Your task to perform on an android device: turn pop-ups on in chrome Image 0: 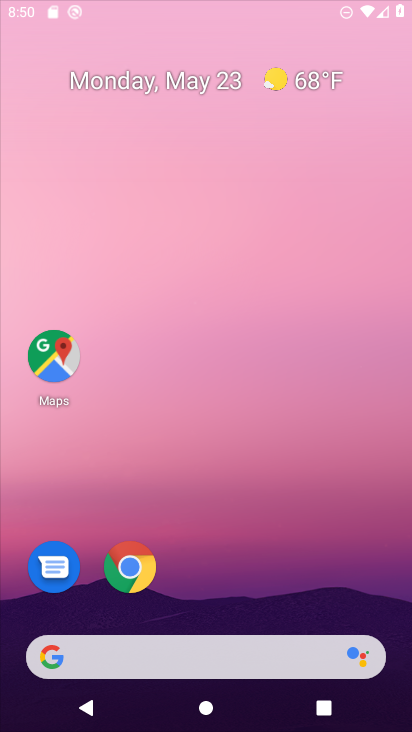
Step 0: click (200, 109)
Your task to perform on an android device: turn pop-ups on in chrome Image 1: 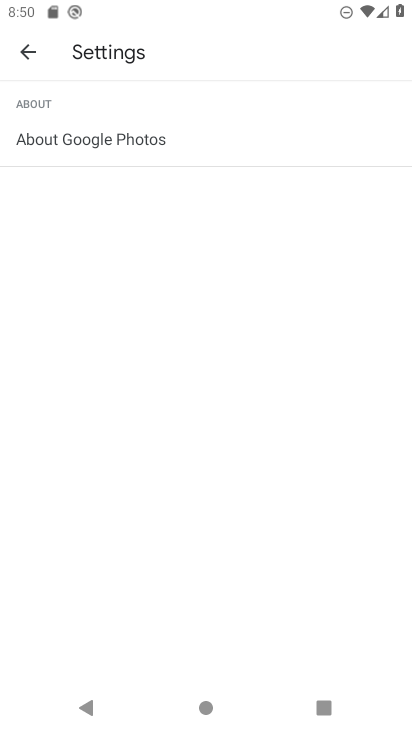
Step 1: press home button
Your task to perform on an android device: turn pop-ups on in chrome Image 2: 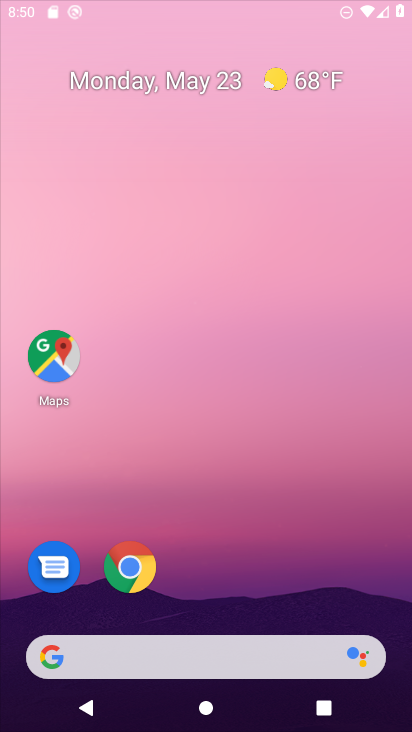
Step 2: drag from (176, 631) to (270, 43)
Your task to perform on an android device: turn pop-ups on in chrome Image 3: 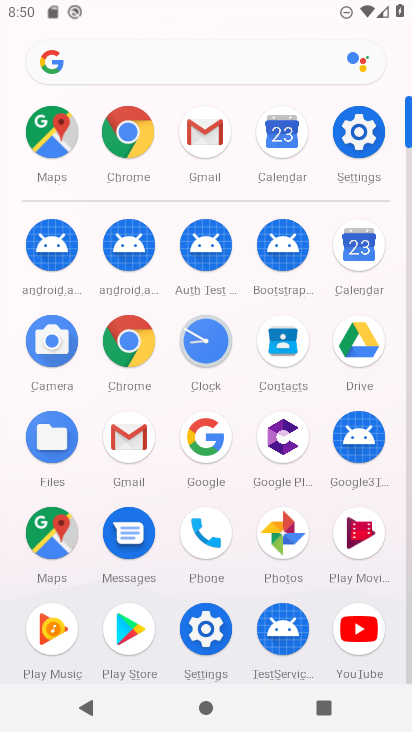
Step 3: click (127, 331)
Your task to perform on an android device: turn pop-ups on in chrome Image 4: 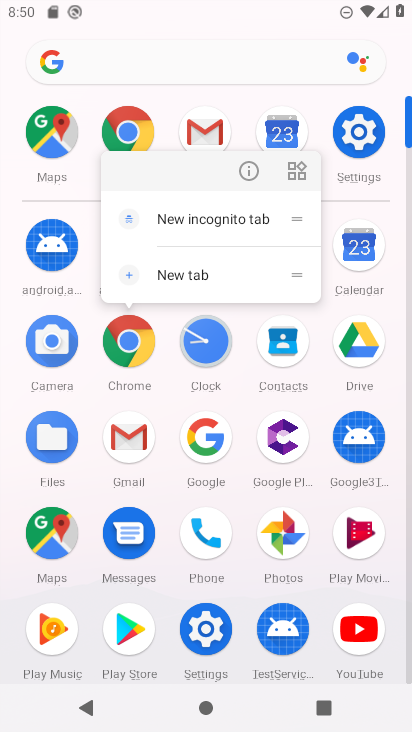
Step 4: click (256, 182)
Your task to perform on an android device: turn pop-ups on in chrome Image 5: 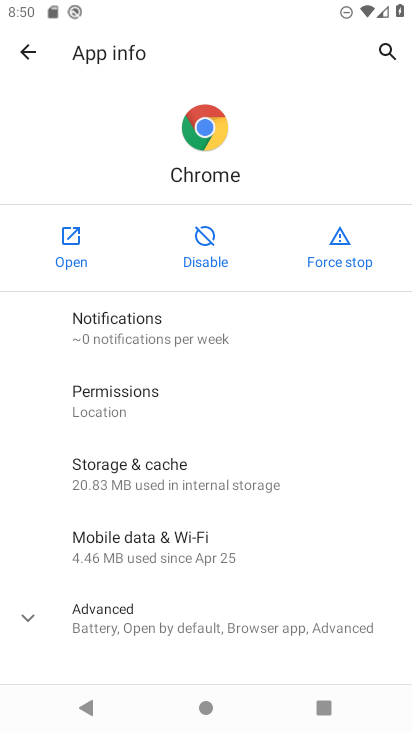
Step 5: click (63, 236)
Your task to perform on an android device: turn pop-ups on in chrome Image 6: 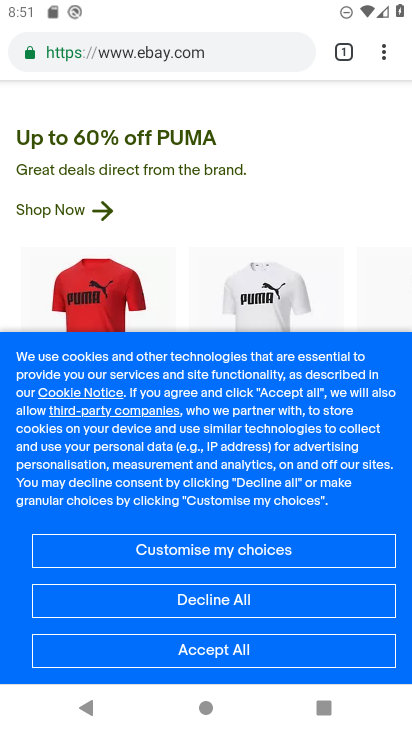
Step 6: drag from (252, 562) to (320, 180)
Your task to perform on an android device: turn pop-ups on in chrome Image 7: 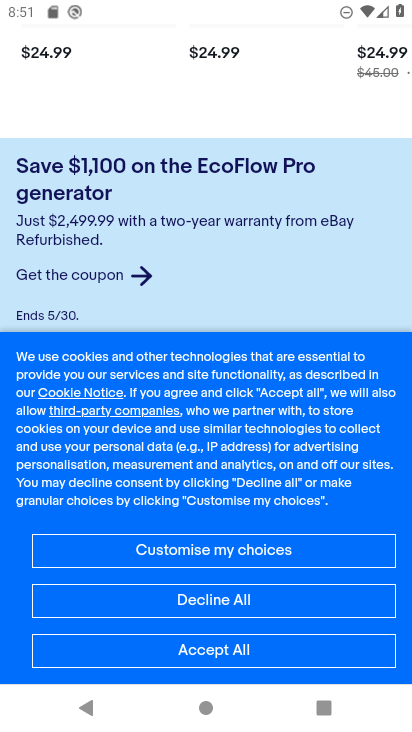
Step 7: drag from (381, 51) to (374, 468)
Your task to perform on an android device: turn pop-ups on in chrome Image 8: 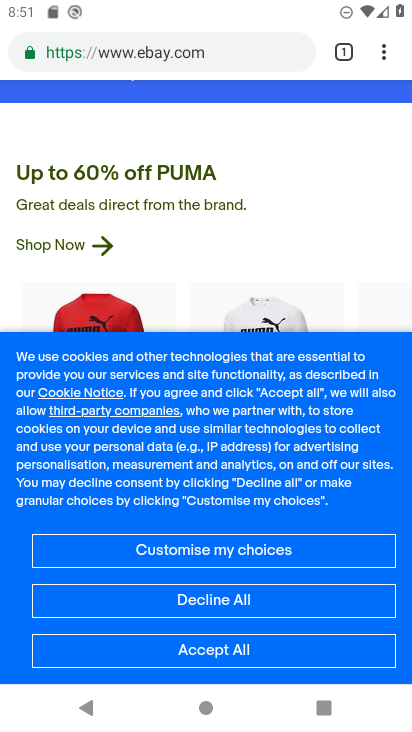
Step 8: click (378, 56)
Your task to perform on an android device: turn pop-ups on in chrome Image 9: 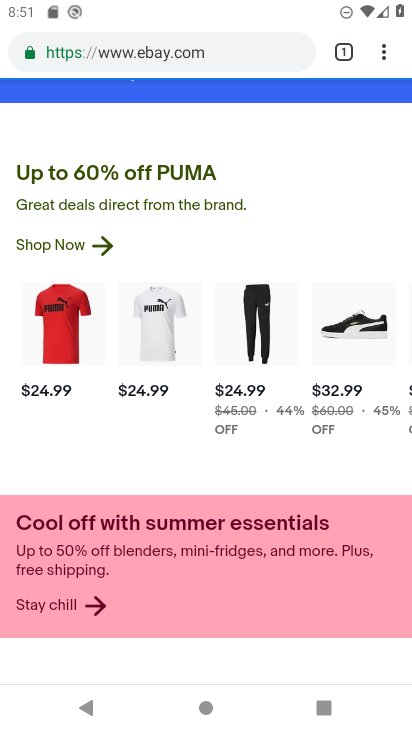
Step 9: click (380, 49)
Your task to perform on an android device: turn pop-ups on in chrome Image 10: 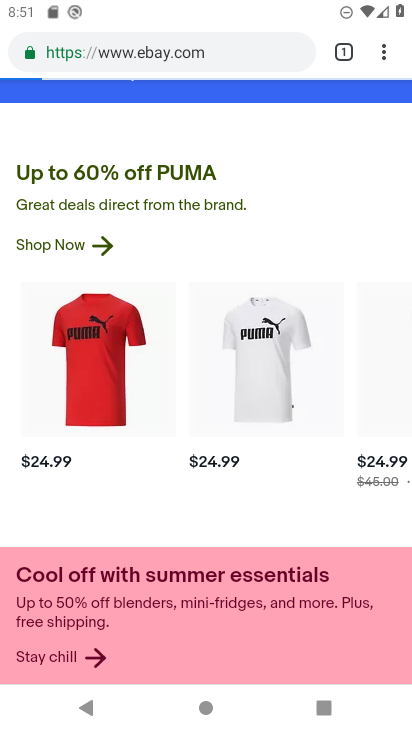
Step 10: click (380, 49)
Your task to perform on an android device: turn pop-ups on in chrome Image 11: 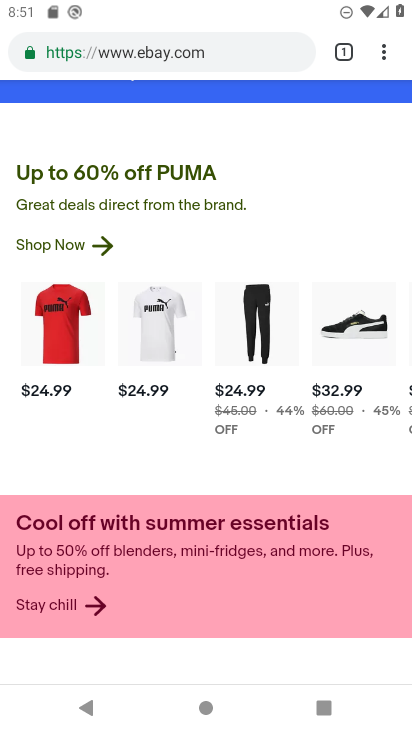
Step 11: click (381, 46)
Your task to perform on an android device: turn pop-ups on in chrome Image 12: 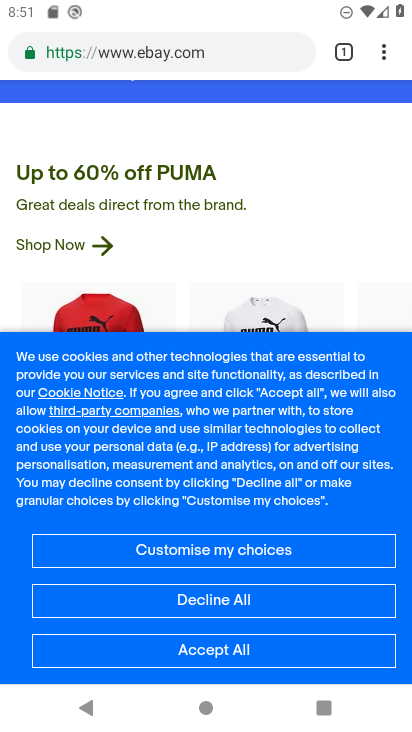
Step 12: click (387, 57)
Your task to perform on an android device: turn pop-ups on in chrome Image 13: 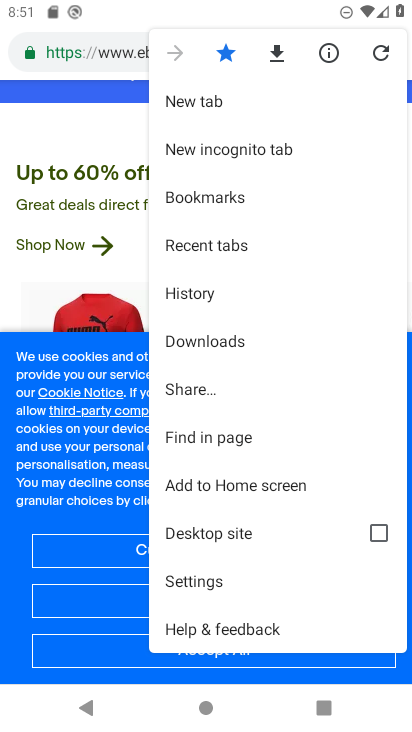
Step 13: click (242, 587)
Your task to perform on an android device: turn pop-ups on in chrome Image 14: 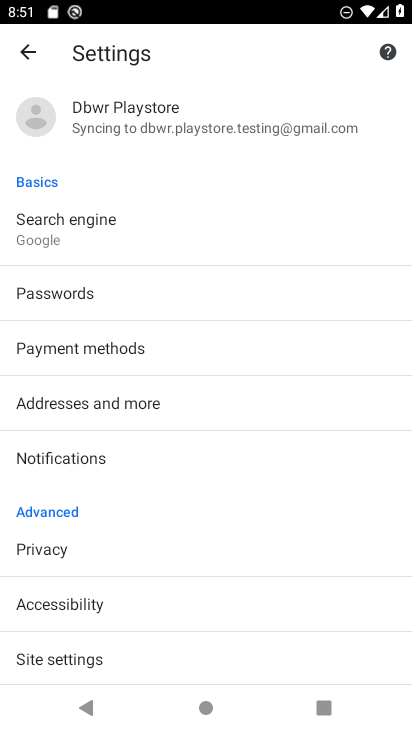
Step 14: drag from (193, 610) to (295, 136)
Your task to perform on an android device: turn pop-ups on in chrome Image 15: 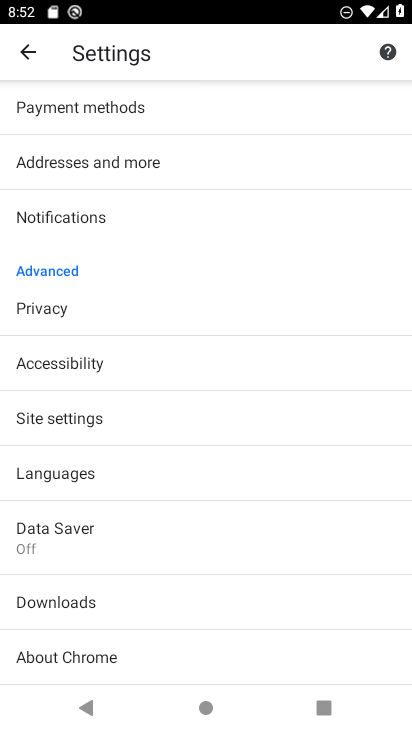
Step 15: click (115, 413)
Your task to perform on an android device: turn pop-ups on in chrome Image 16: 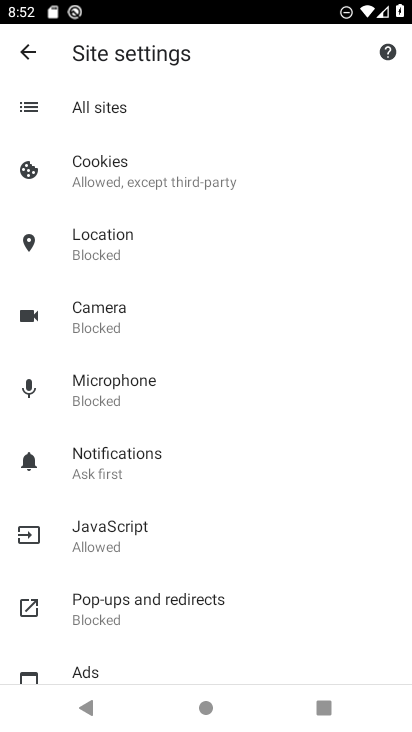
Step 16: drag from (227, 613) to (223, 80)
Your task to perform on an android device: turn pop-ups on in chrome Image 17: 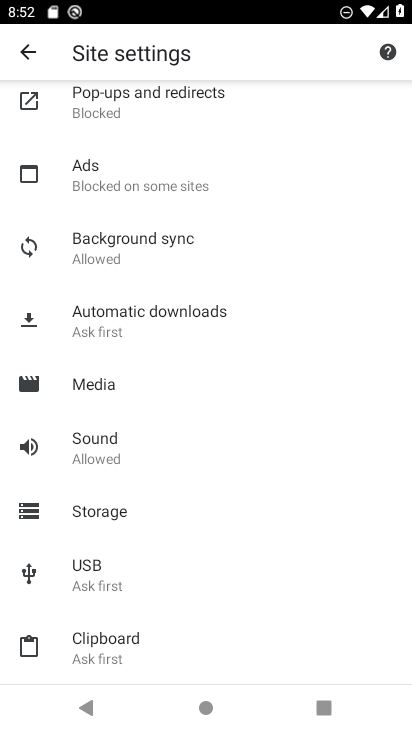
Step 17: click (167, 89)
Your task to perform on an android device: turn pop-ups on in chrome Image 18: 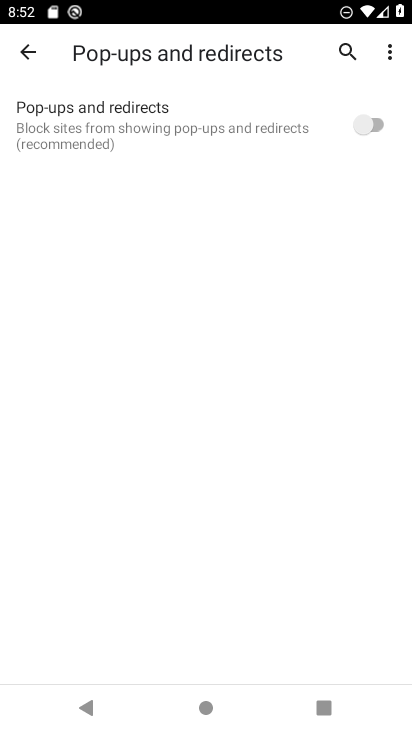
Step 18: click (351, 120)
Your task to perform on an android device: turn pop-ups on in chrome Image 19: 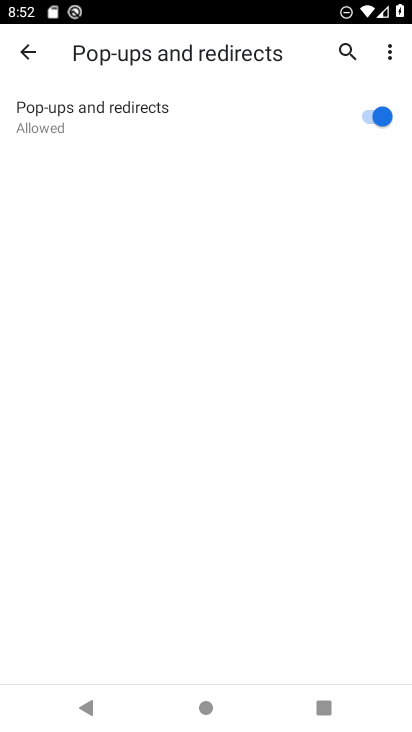
Step 19: task complete